Your task to perform on an android device: remove spam from my inbox in the gmail app Image 0: 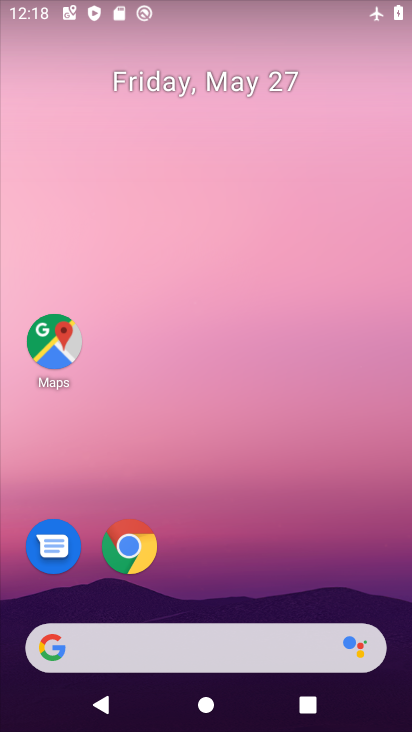
Step 0: drag from (300, 512) to (169, 67)
Your task to perform on an android device: remove spam from my inbox in the gmail app Image 1: 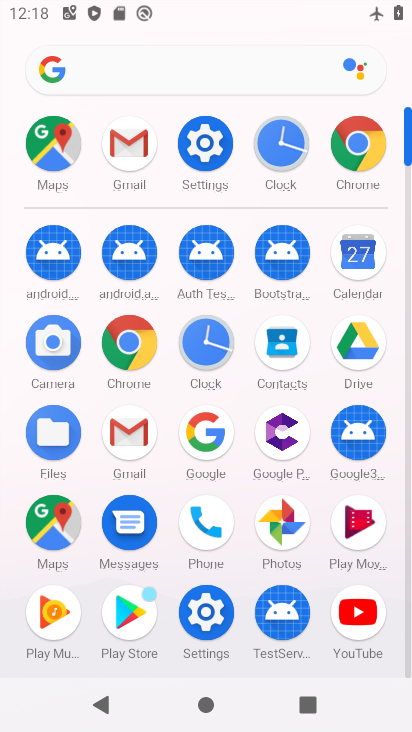
Step 1: click (125, 133)
Your task to perform on an android device: remove spam from my inbox in the gmail app Image 2: 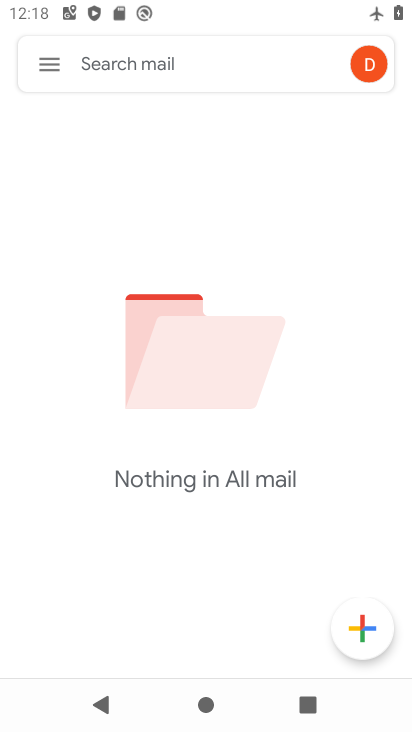
Step 2: click (44, 52)
Your task to perform on an android device: remove spam from my inbox in the gmail app Image 3: 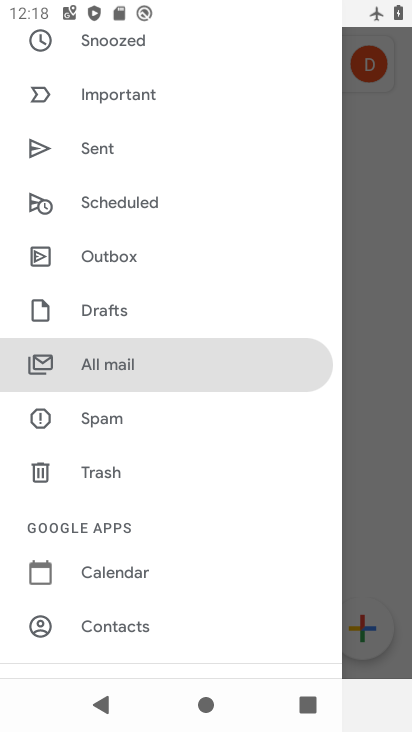
Step 3: click (104, 420)
Your task to perform on an android device: remove spam from my inbox in the gmail app Image 4: 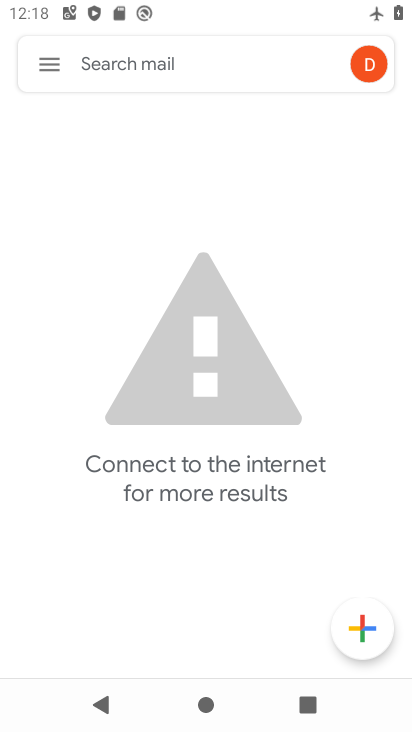
Step 4: task complete